Your task to perform on an android device: see creations saved in the google photos Image 0: 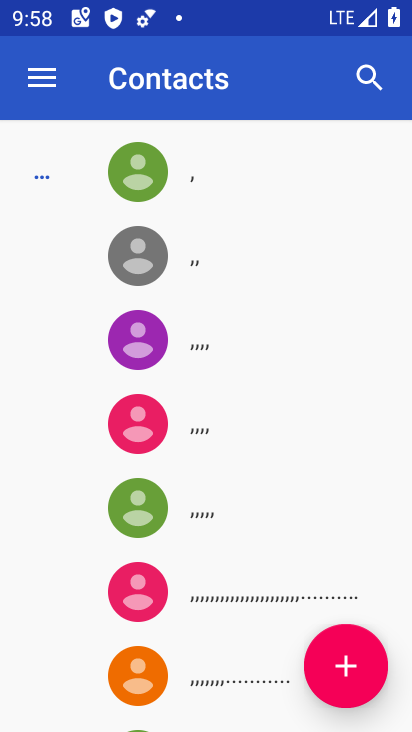
Step 0: press home button
Your task to perform on an android device: see creations saved in the google photos Image 1: 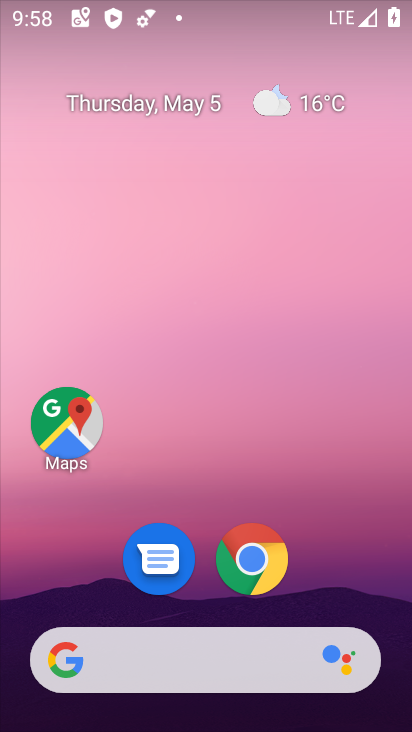
Step 1: drag from (235, 606) to (273, 9)
Your task to perform on an android device: see creations saved in the google photos Image 2: 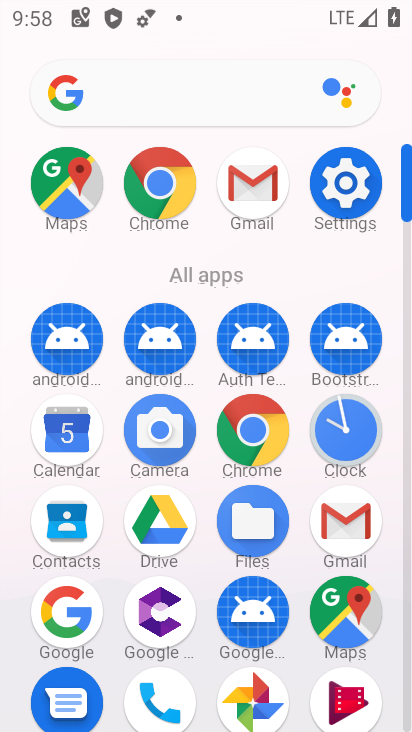
Step 2: click (252, 706)
Your task to perform on an android device: see creations saved in the google photos Image 3: 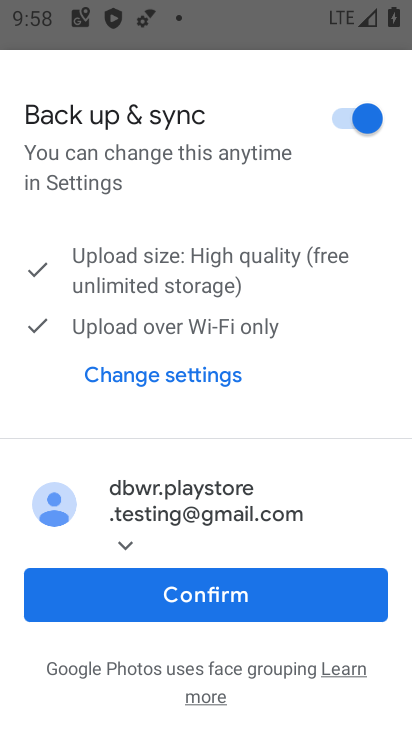
Step 3: click (204, 588)
Your task to perform on an android device: see creations saved in the google photos Image 4: 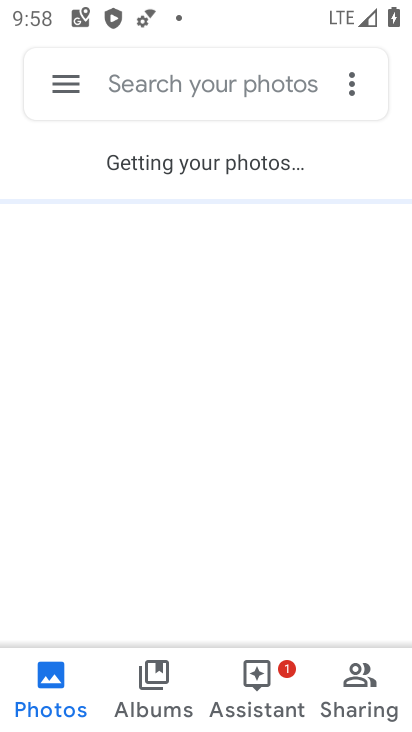
Step 4: click (227, 88)
Your task to perform on an android device: see creations saved in the google photos Image 5: 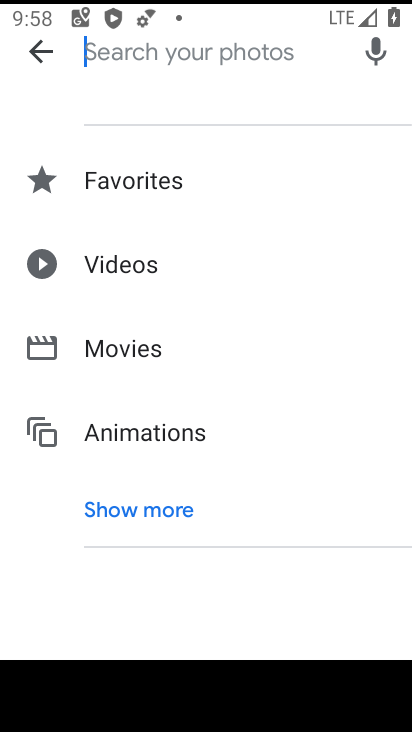
Step 5: type "creations"
Your task to perform on an android device: see creations saved in the google photos Image 6: 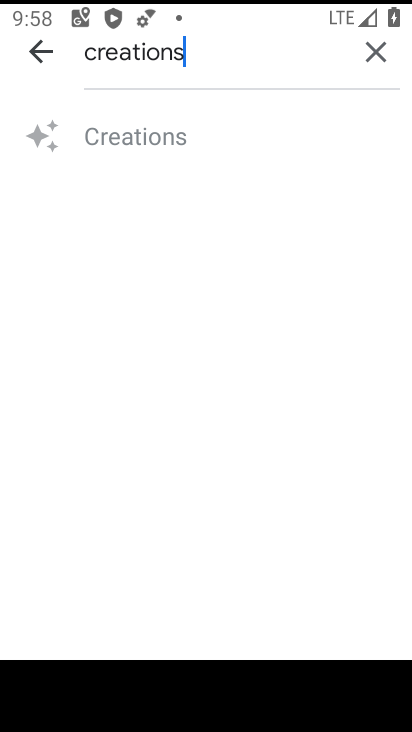
Step 6: click (143, 143)
Your task to perform on an android device: see creations saved in the google photos Image 7: 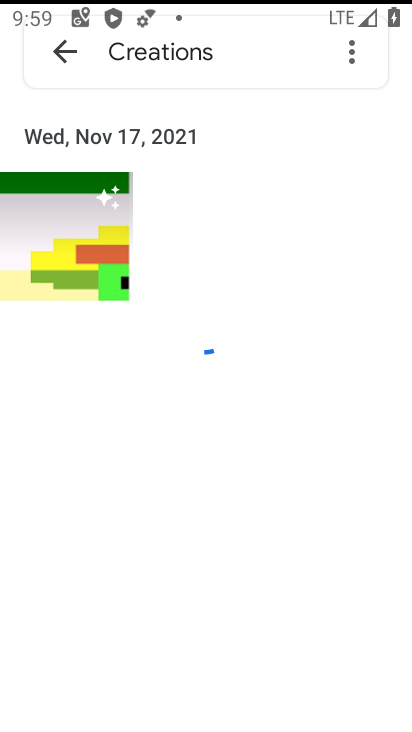
Step 7: click (52, 211)
Your task to perform on an android device: see creations saved in the google photos Image 8: 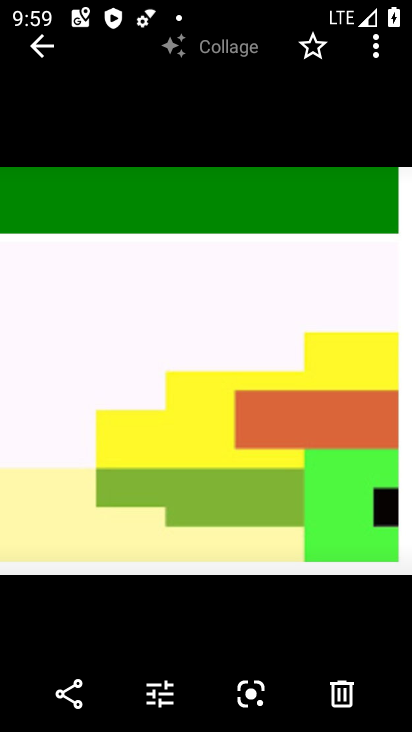
Step 8: task complete